Your task to perform on an android device: change notification settings in the gmail app Image 0: 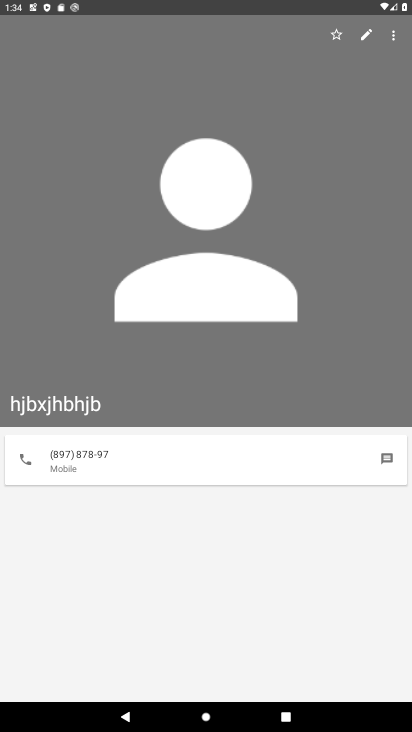
Step 0: press home button
Your task to perform on an android device: change notification settings in the gmail app Image 1: 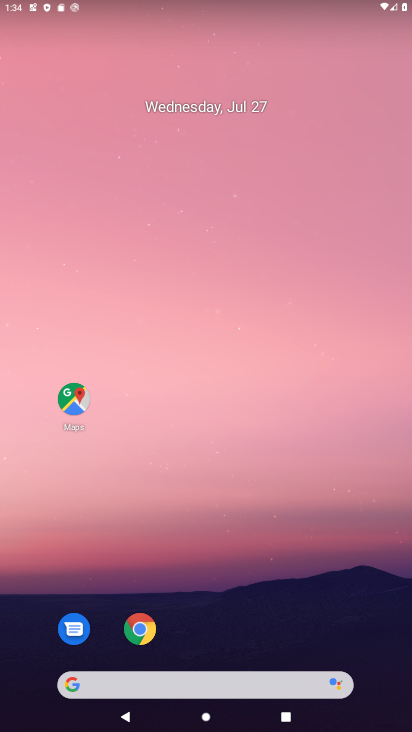
Step 1: drag from (303, 617) to (283, 204)
Your task to perform on an android device: change notification settings in the gmail app Image 2: 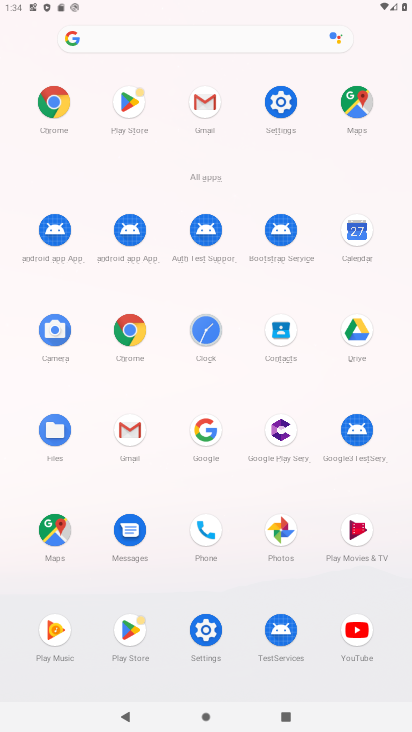
Step 2: click (121, 423)
Your task to perform on an android device: change notification settings in the gmail app Image 3: 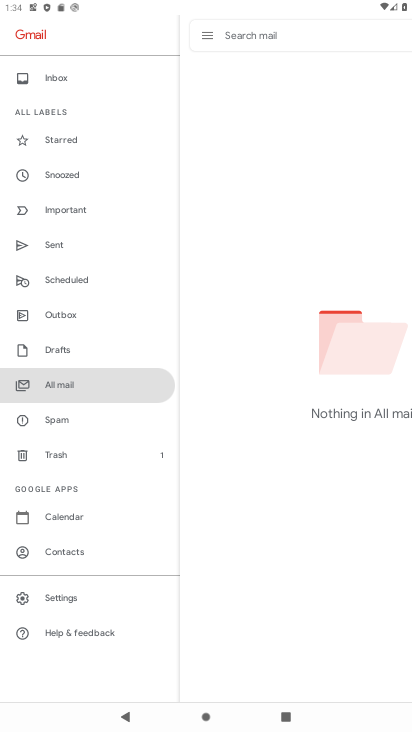
Step 3: click (68, 610)
Your task to perform on an android device: change notification settings in the gmail app Image 4: 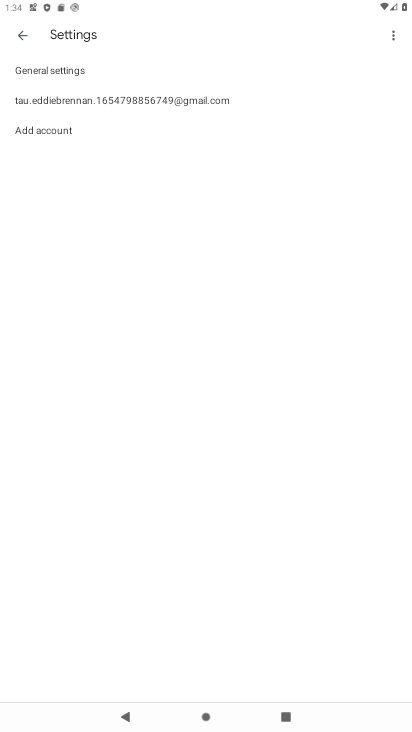
Step 4: click (237, 111)
Your task to perform on an android device: change notification settings in the gmail app Image 5: 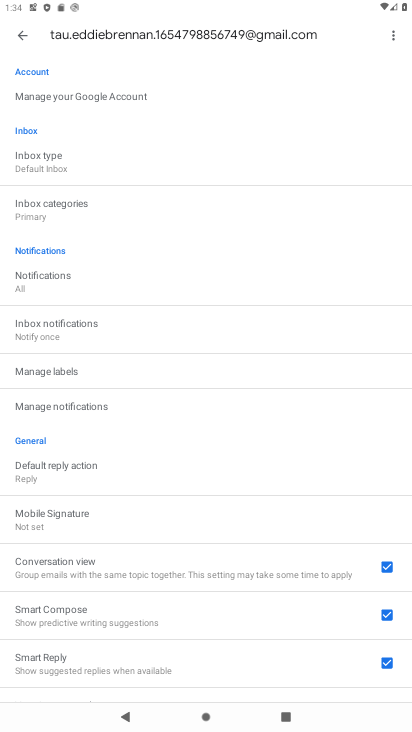
Step 5: click (98, 409)
Your task to perform on an android device: change notification settings in the gmail app Image 6: 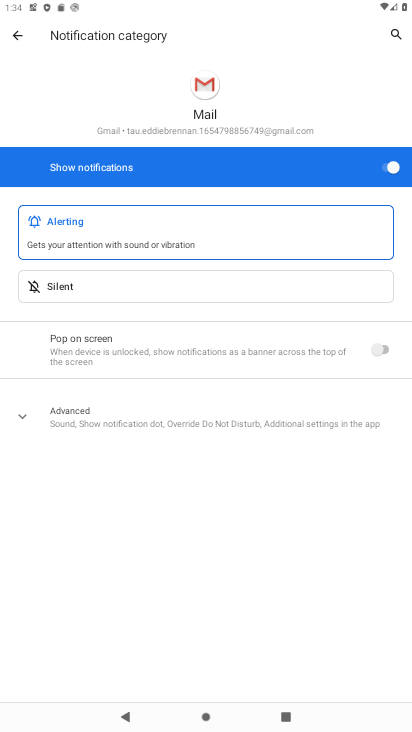
Step 6: click (161, 295)
Your task to perform on an android device: change notification settings in the gmail app Image 7: 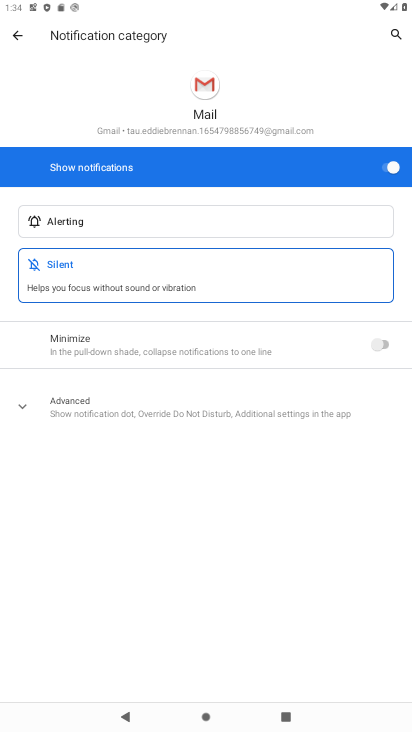
Step 7: click (352, 344)
Your task to perform on an android device: change notification settings in the gmail app Image 8: 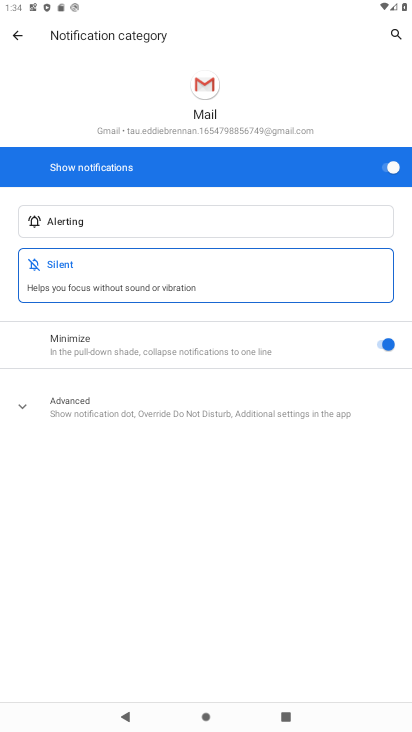
Step 8: click (383, 344)
Your task to perform on an android device: change notification settings in the gmail app Image 9: 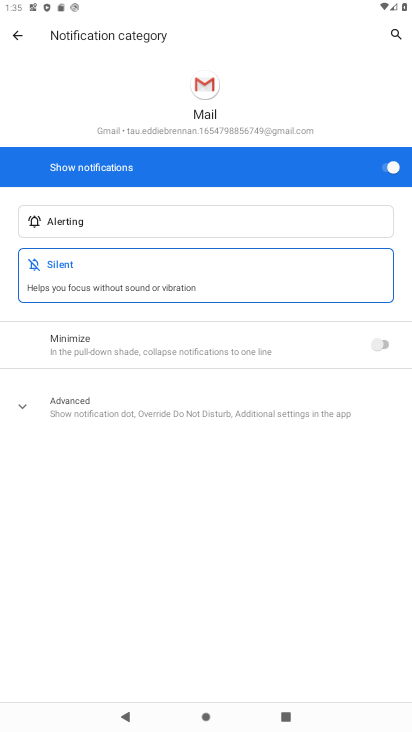
Step 9: task complete